Your task to perform on an android device: Is it going to rain today? Image 0: 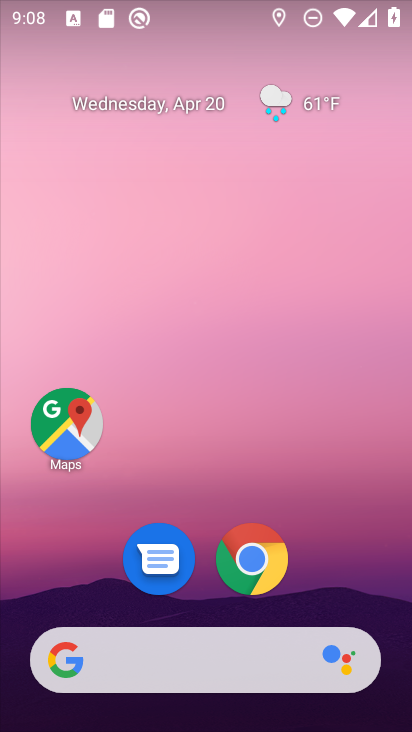
Step 0: click (274, 95)
Your task to perform on an android device: Is it going to rain today? Image 1: 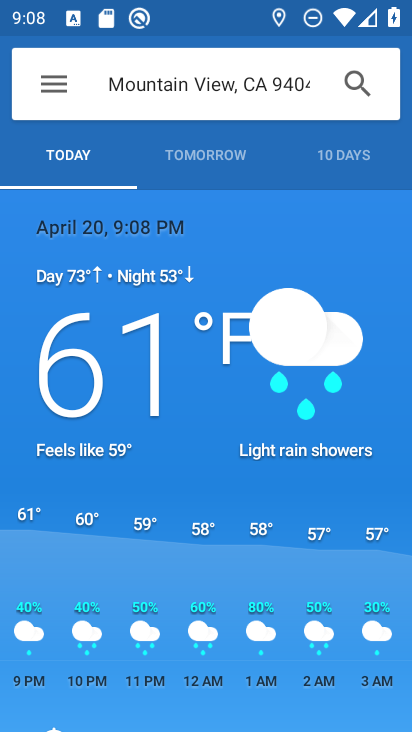
Step 1: task complete